Your task to perform on an android device: toggle pop-ups in chrome Image 0: 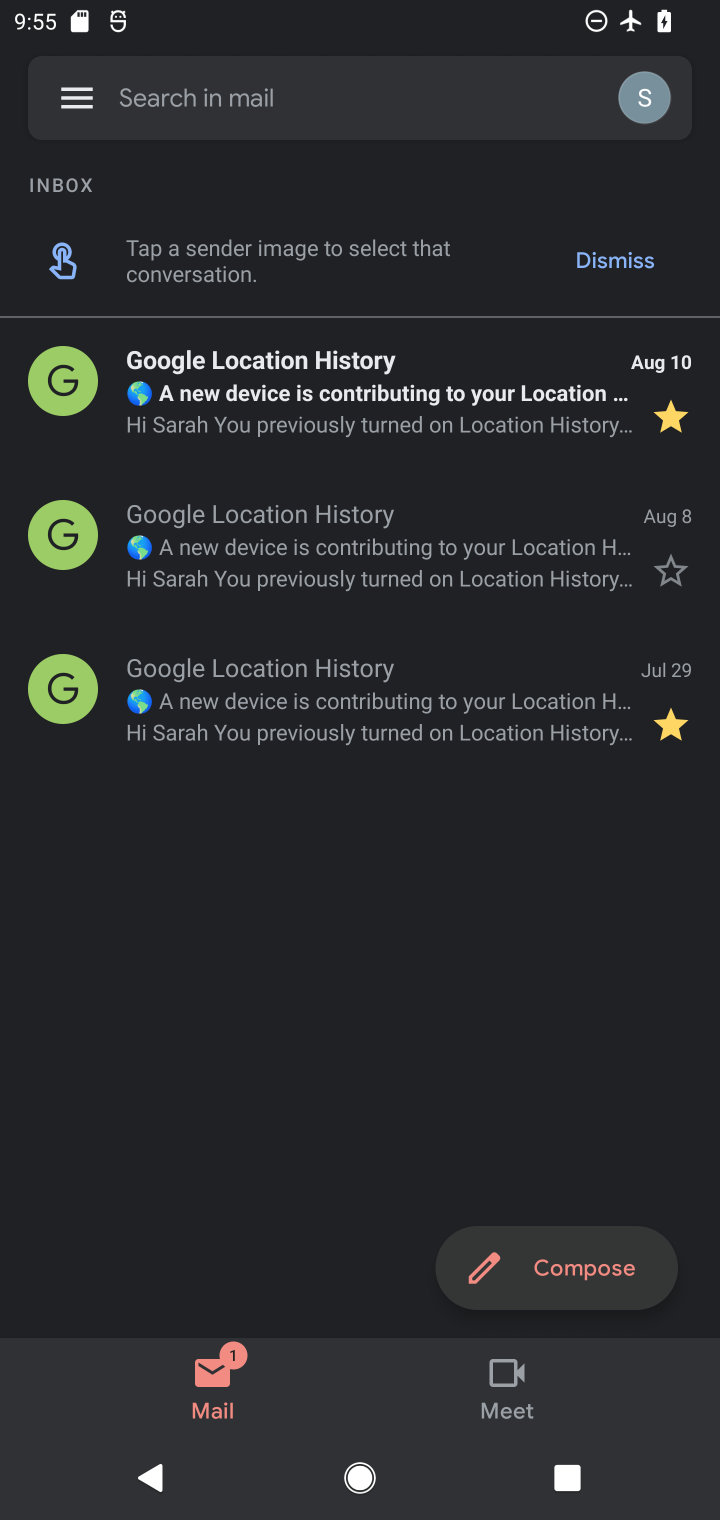
Step 0: press home button
Your task to perform on an android device: toggle pop-ups in chrome Image 1: 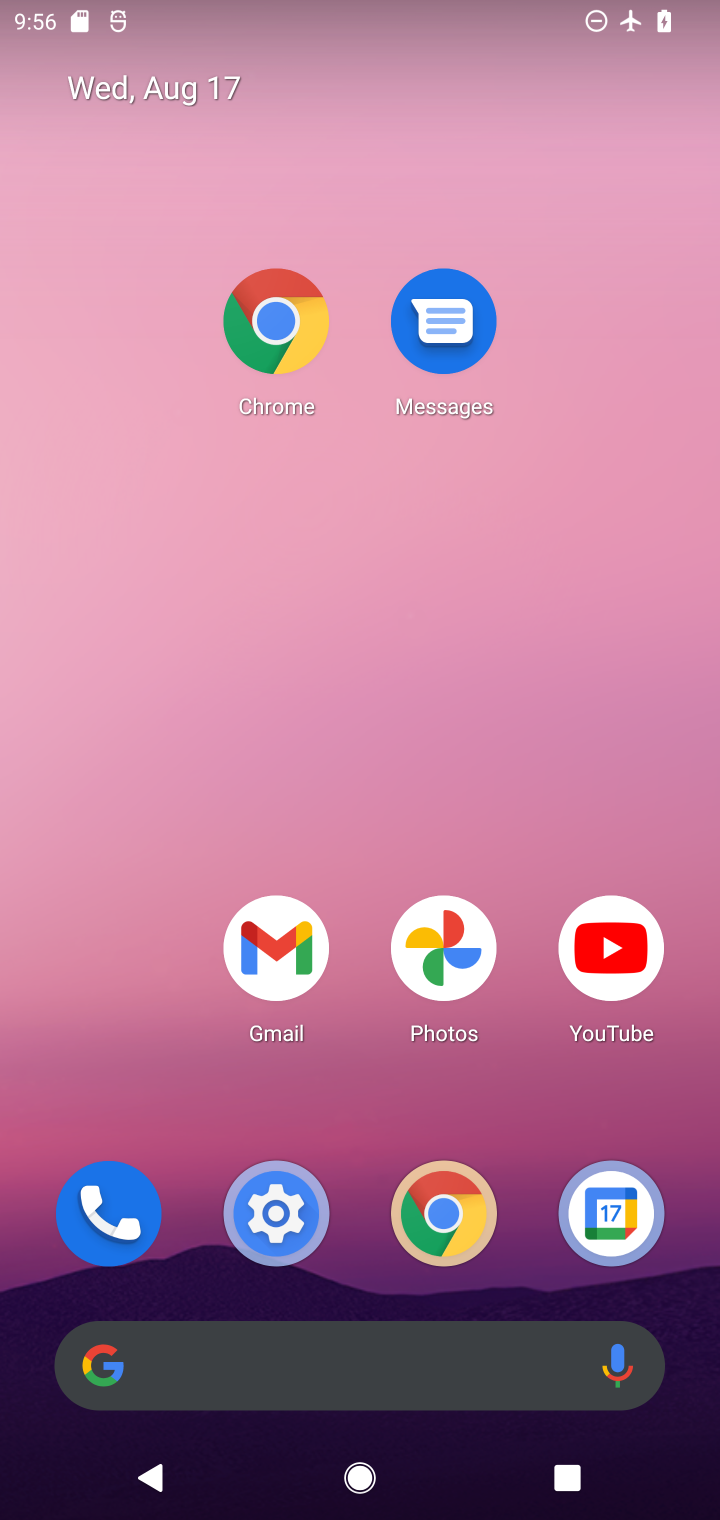
Step 1: click (454, 1208)
Your task to perform on an android device: toggle pop-ups in chrome Image 2: 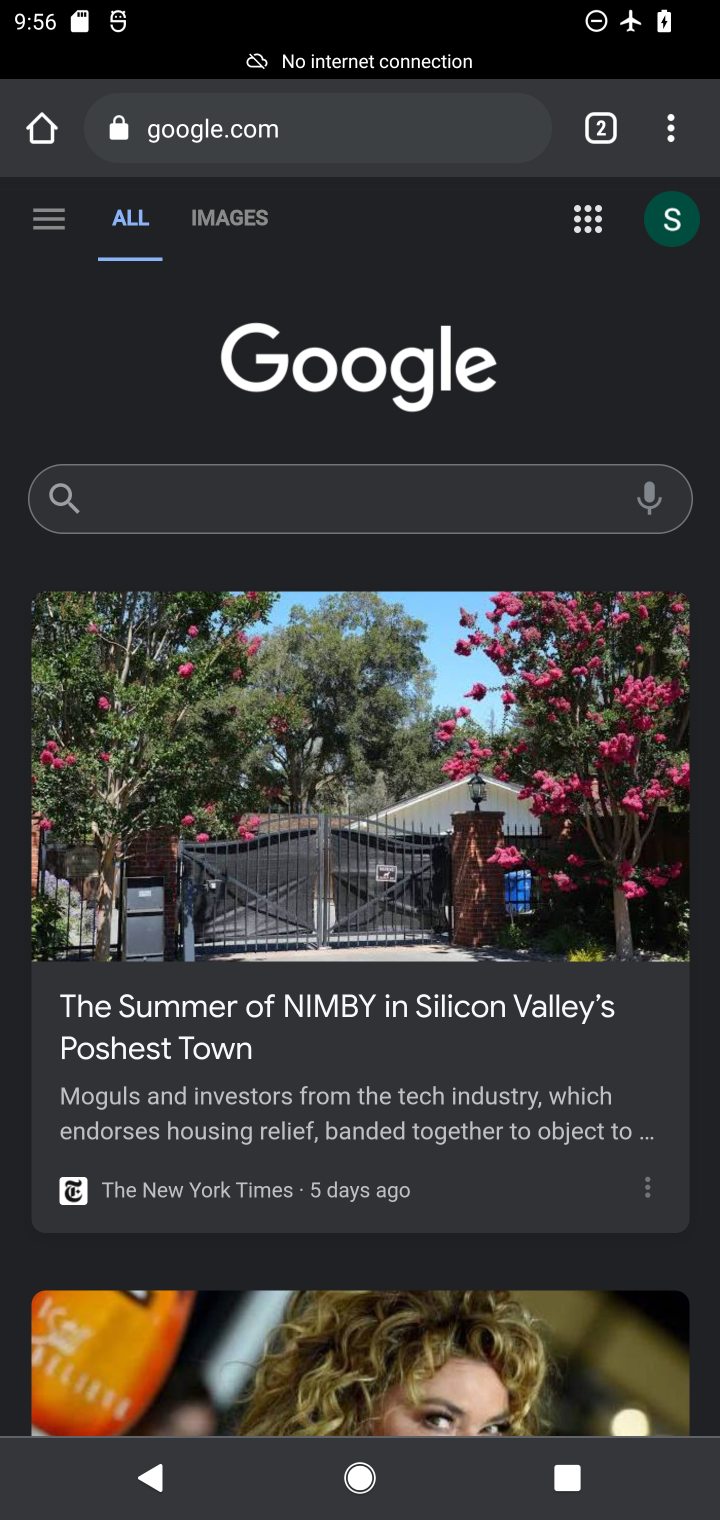
Step 2: click (663, 150)
Your task to perform on an android device: toggle pop-ups in chrome Image 3: 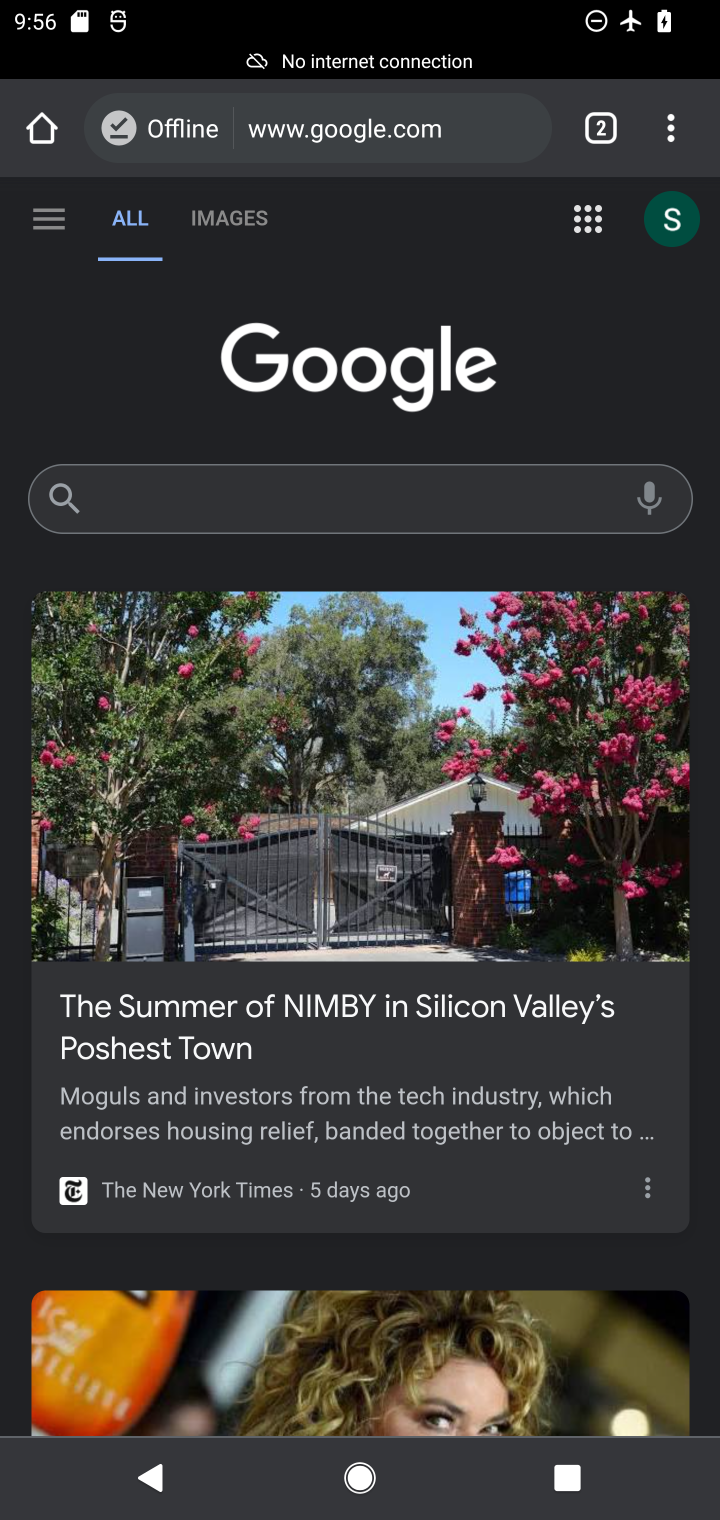
Step 3: click (675, 142)
Your task to perform on an android device: toggle pop-ups in chrome Image 4: 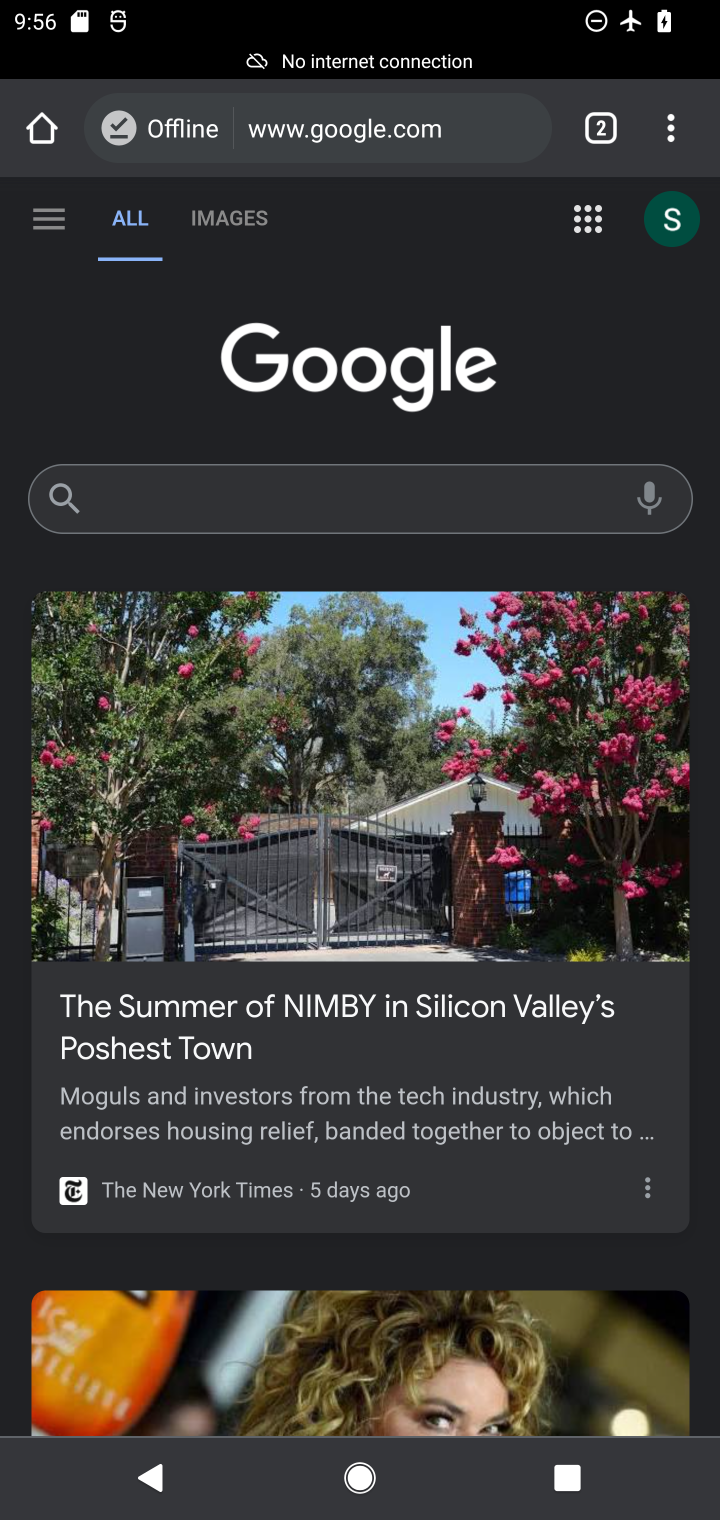
Step 4: task complete